Your task to perform on an android device: Search for Mexican restaurants on Maps Image 0: 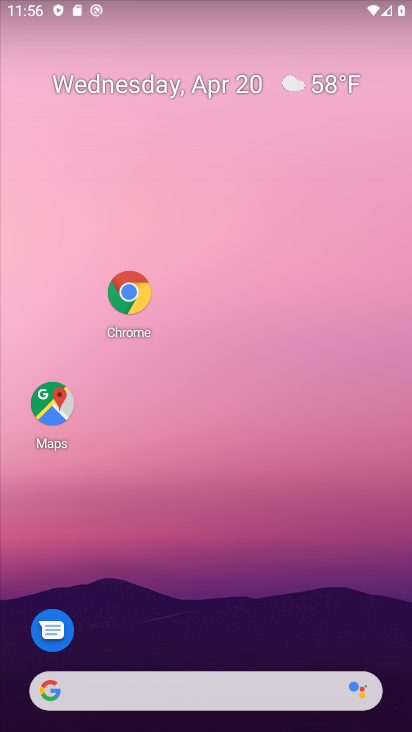
Step 0: click (58, 400)
Your task to perform on an android device: Search for Mexican restaurants on Maps Image 1: 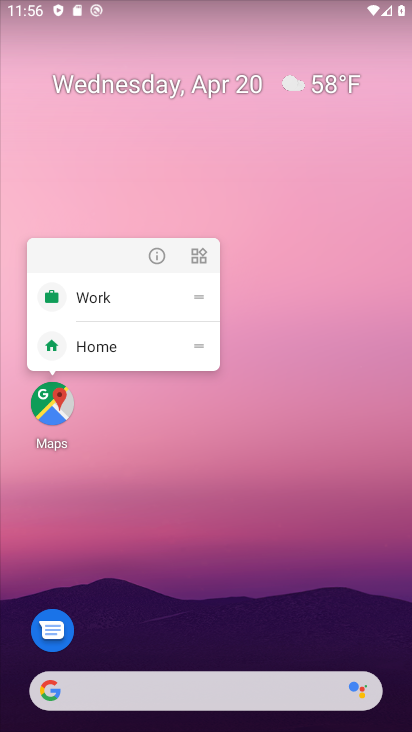
Step 1: click (49, 405)
Your task to perform on an android device: Search for Mexican restaurants on Maps Image 2: 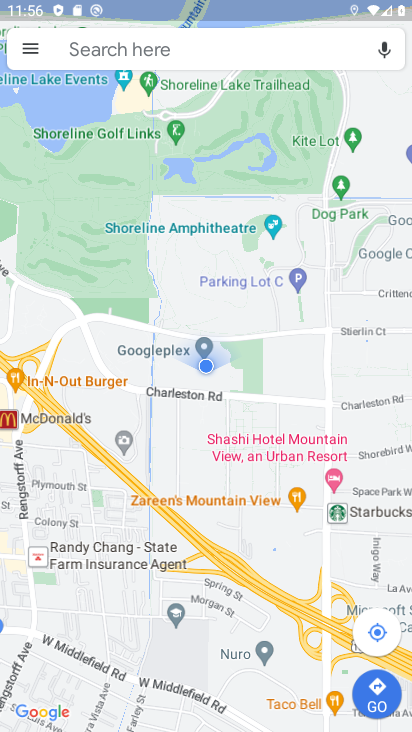
Step 2: click (133, 53)
Your task to perform on an android device: Search for Mexican restaurants on Maps Image 3: 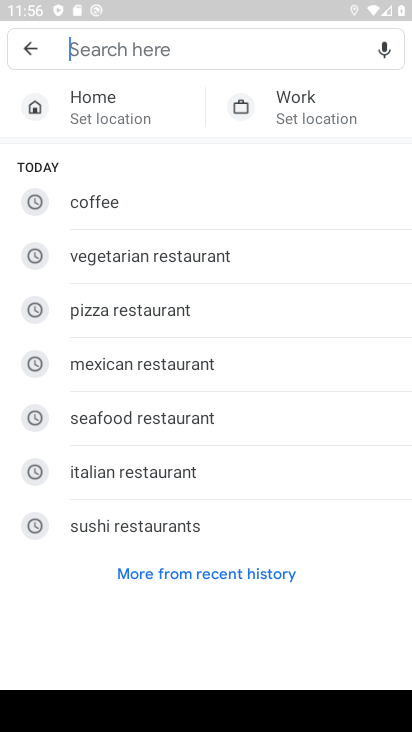
Step 3: click (118, 354)
Your task to perform on an android device: Search for Mexican restaurants on Maps Image 4: 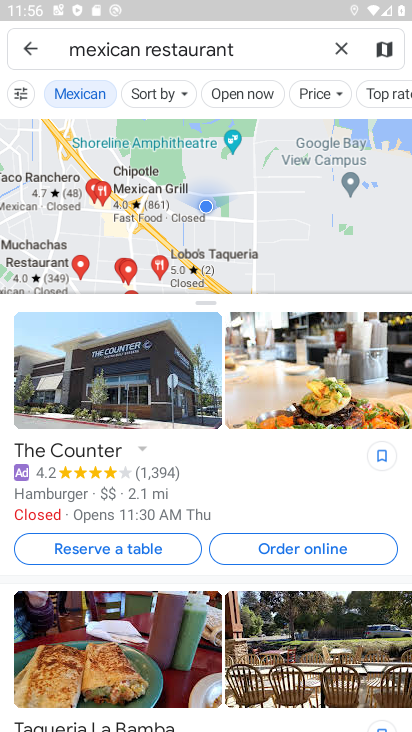
Step 4: task complete